Your task to perform on an android device: What is the news today? Image 0: 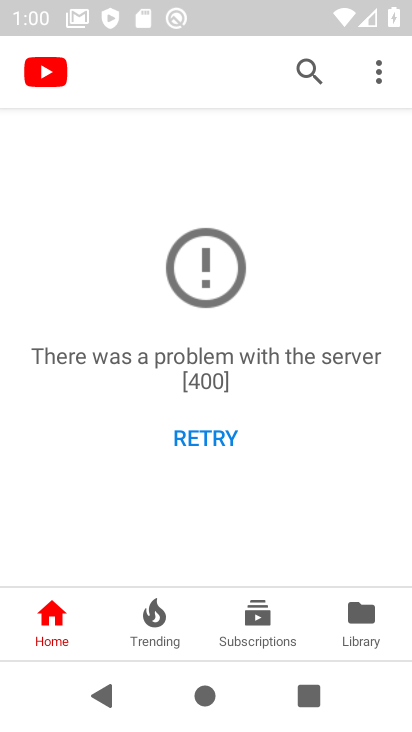
Step 0: press home button
Your task to perform on an android device: What is the news today? Image 1: 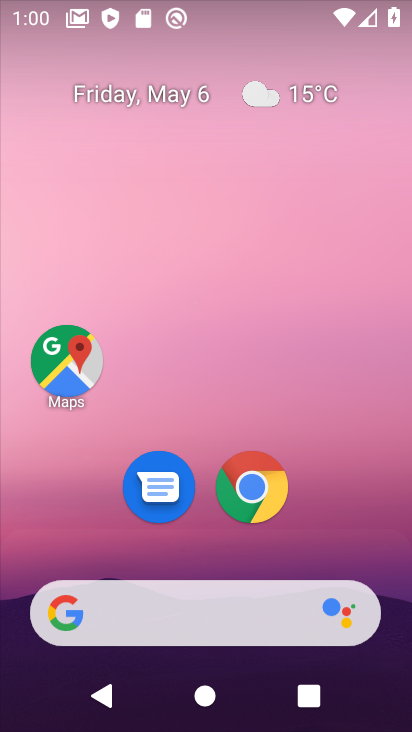
Step 1: drag from (280, 587) to (257, 162)
Your task to perform on an android device: What is the news today? Image 2: 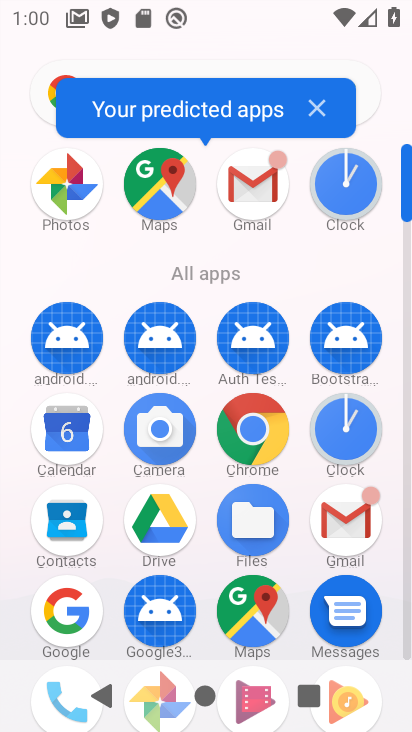
Step 2: drag from (203, 453) to (253, 177)
Your task to perform on an android device: What is the news today? Image 3: 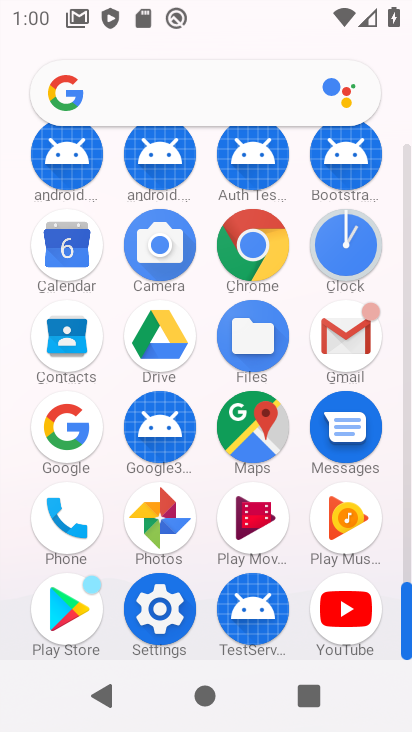
Step 3: click (57, 450)
Your task to perform on an android device: What is the news today? Image 4: 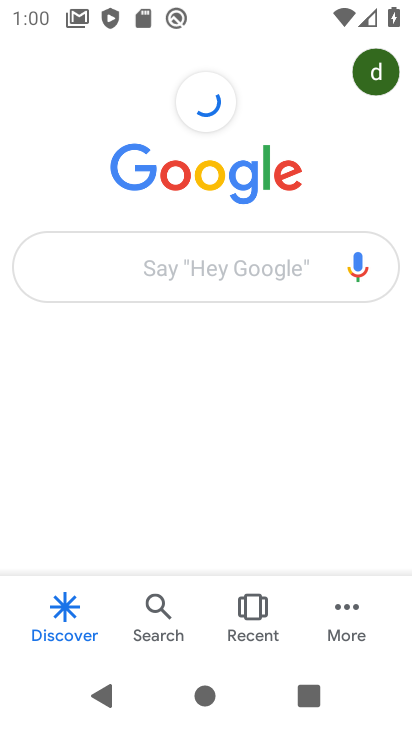
Step 4: click (201, 270)
Your task to perform on an android device: What is the news today? Image 5: 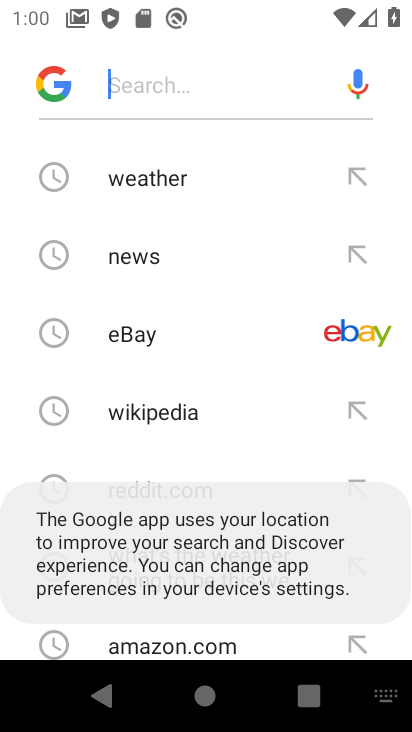
Step 5: click (165, 261)
Your task to perform on an android device: What is the news today? Image 6: 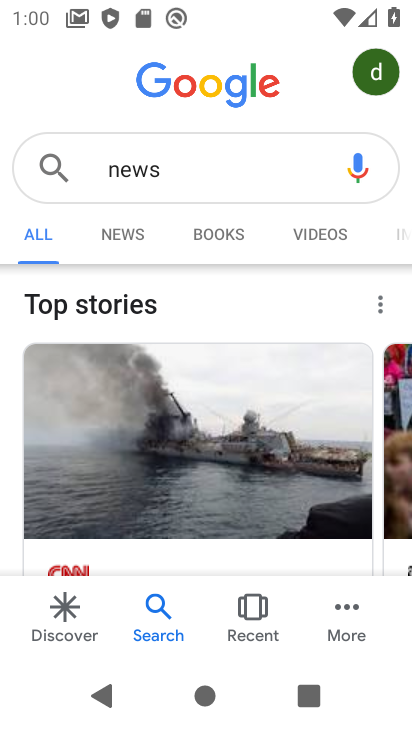
Step 6: click (127, 227)
Your task to perform on an android device: What is the news today? Image 7: 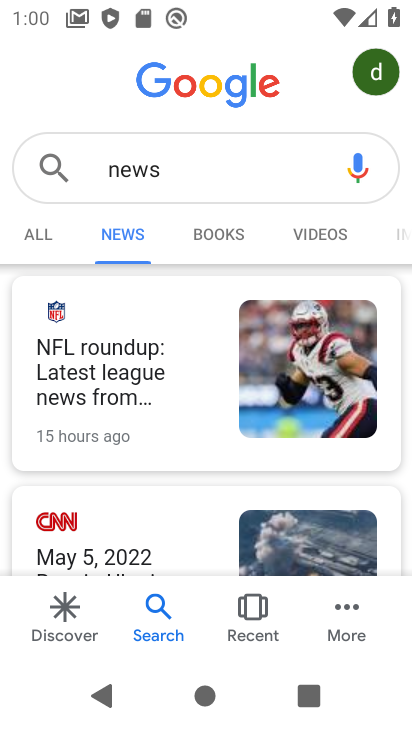
Step 7: task complete